Your task to perform on an android device: check google app version Image 0: 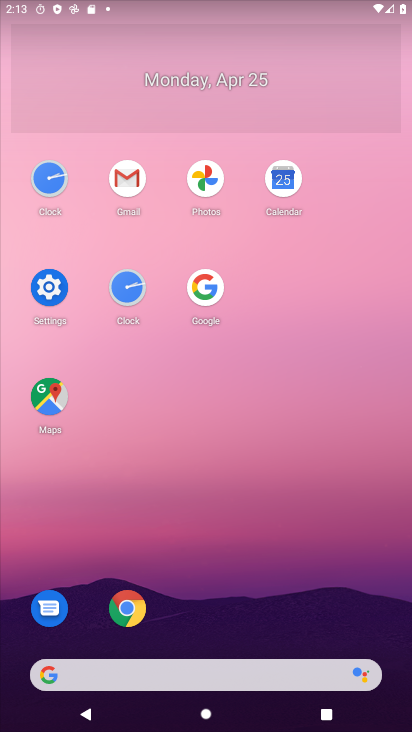
Step 0: click (210, 285)
Your task to perform on an android device: check google app version Image 1: 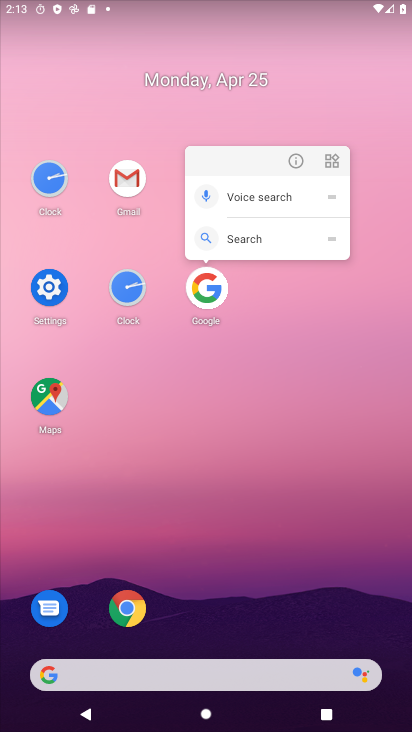
Step 1: click (295, 159)
Your task to perform on an android device: check google app version Image 2: 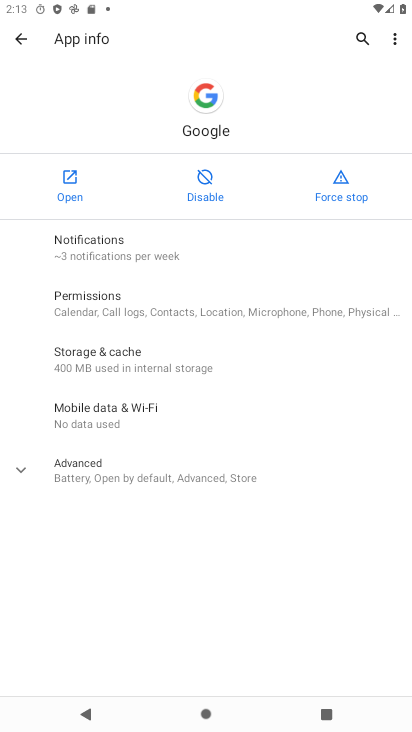
Step 2: click (202, 488)
Your task to perform on an android device: check google app version Image 3: 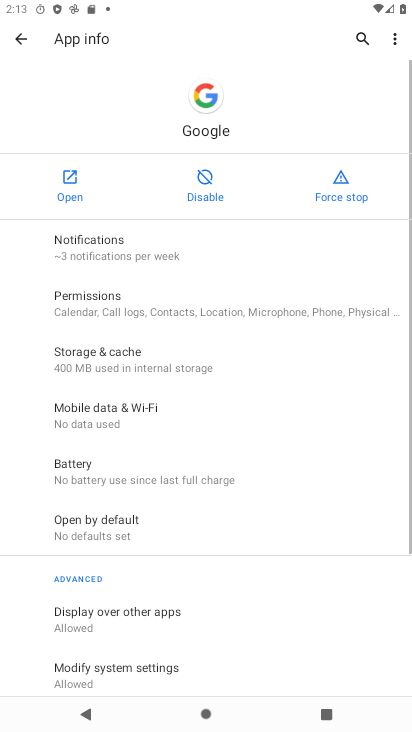
Step 3: task complete